Your task to perform on an android device: Open Yahoo.com Image 0: 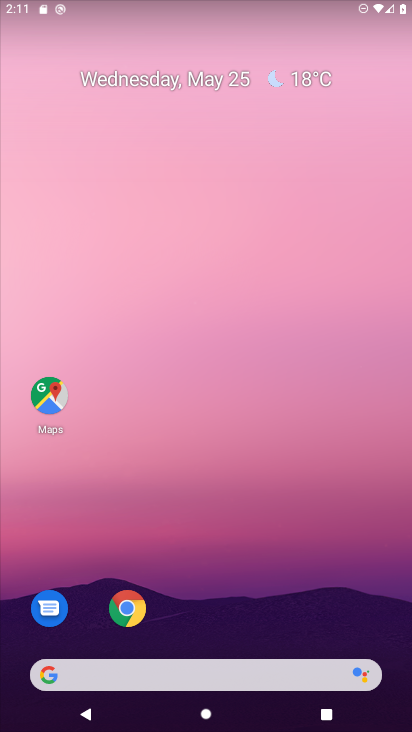
Step 0: click (126, 607)
Your task to perform on an android device: Open Yahoo.com Image 1: 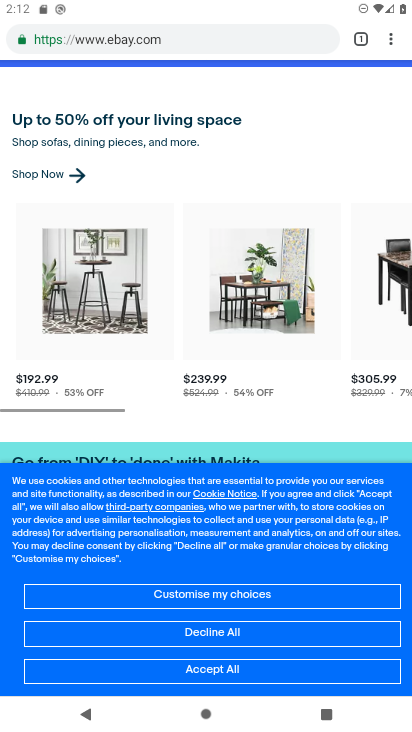
Step 1: click (195, 35)
Your task to perform on an android device: Open Yahoo.com Image 2: 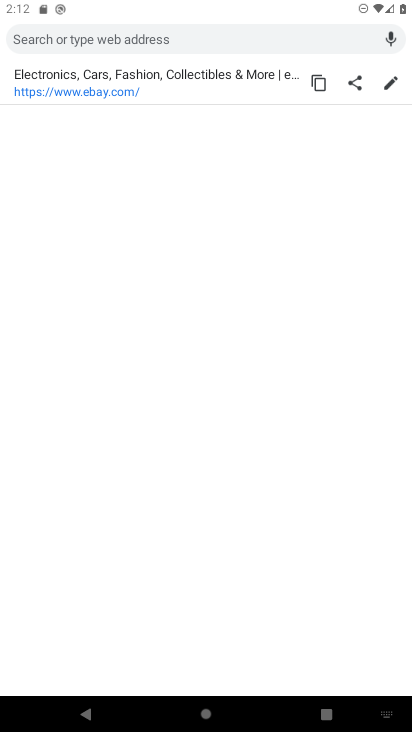
Step 2: type "yahoo.com"
Your task to perform on an android device: Open Yahoo.com Image 3: 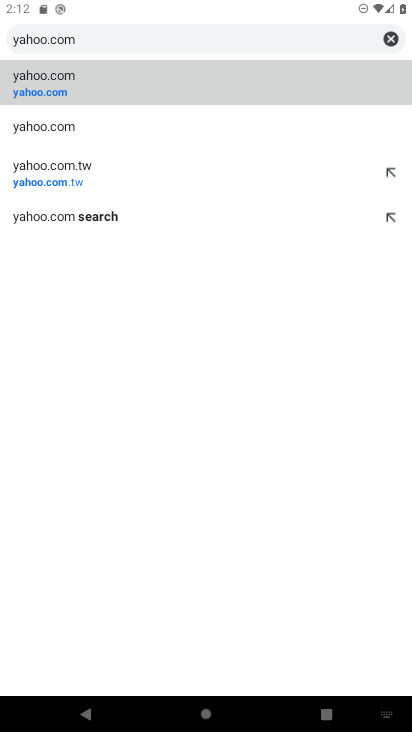
Step 3: click (81, 77)
Your task to perform on an android device: Open Yahoo.com Image 4: 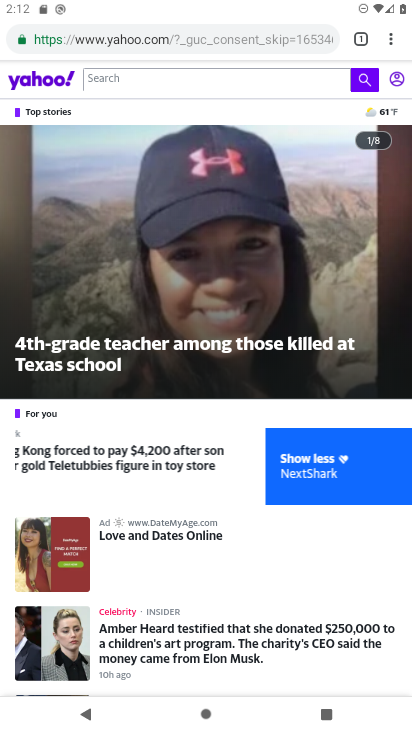
Step 4: task complete